Your task to perform on an android device: turn pop-ups on in chrome Image 0: 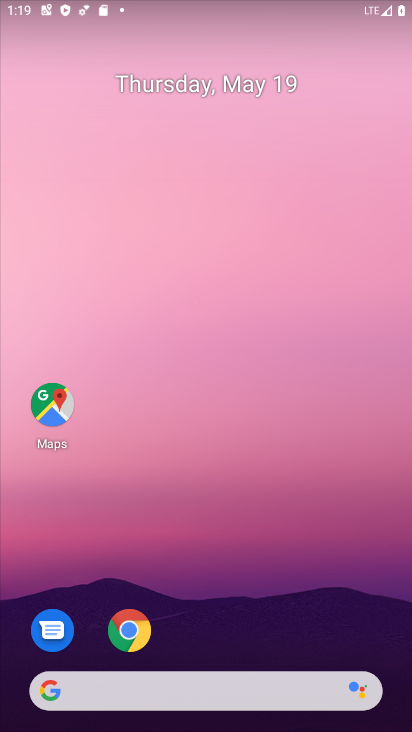
Step 0: drag from (209, 670) to (139, 35)
Your task to perform on an android device: turn pop-ups on in chrome Image 1: 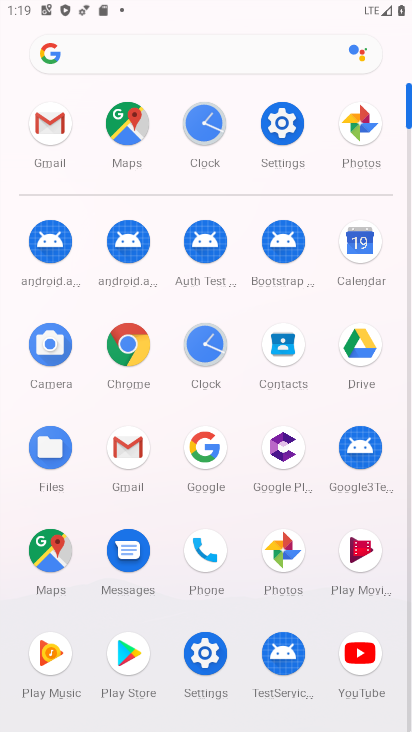
Step 1: click (129, 346)
Your task to perform on an android device: turn pop-ups on in chrome Image 2: 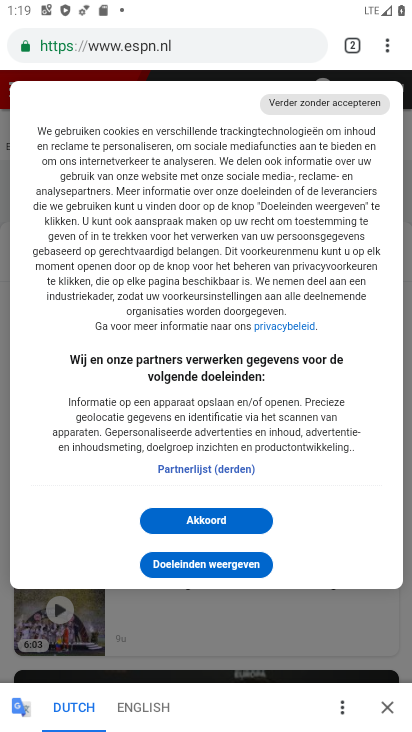
Step 2: click (233, 511)
Your task to perform on an android device: turn pop-ups on in chrome Image 3: 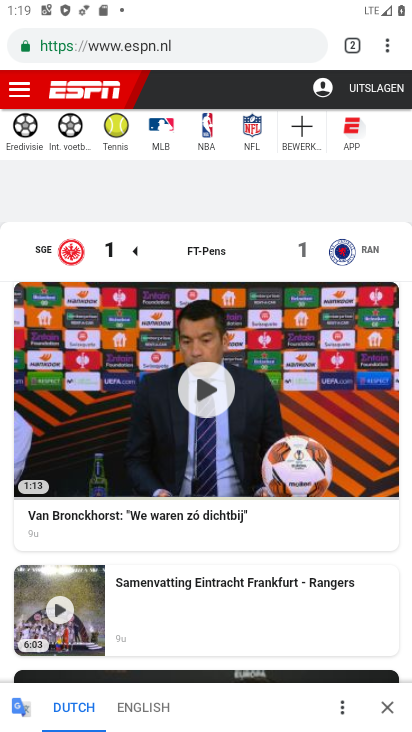
Step 3: click (378, 48)
Your task to perform on an android device: turn pop-ups on in chrome Image 4: 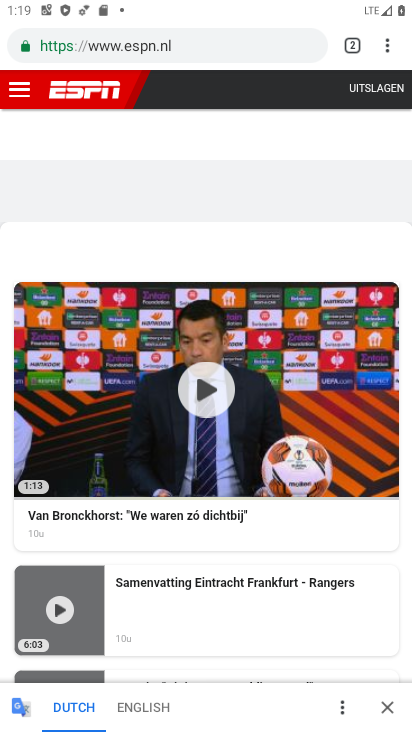
Step 4: click (392, 44)
Your task to perform on an android device: turn pop-ups on in chrome Image 5: 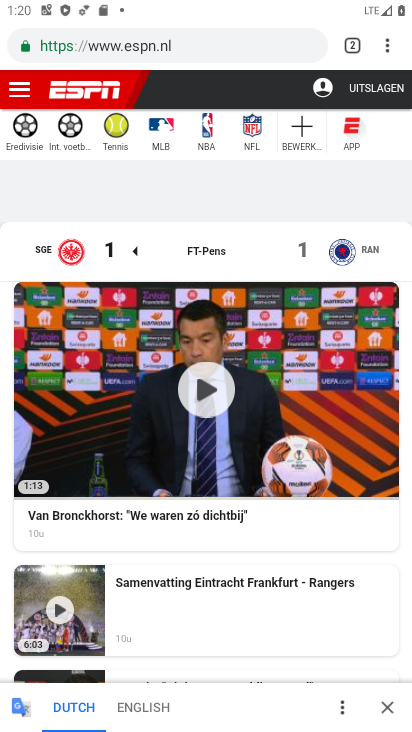
Step 5: click (386, 57)
Your task to perform on an android device: turn pop-ups on in chrome Image 6: 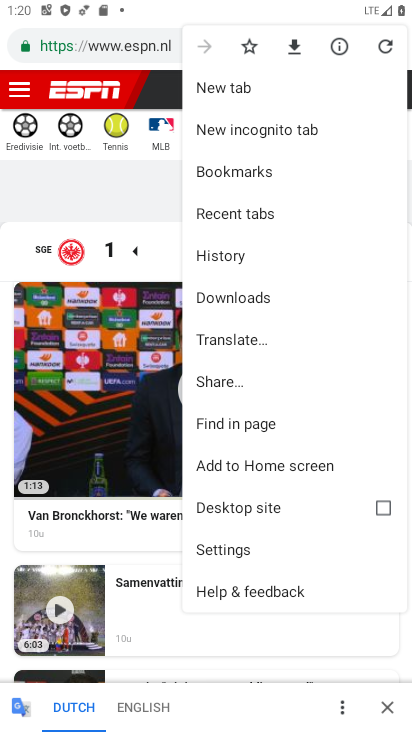
Step 6: click (243, 546)
Your task to perform on an android device: turn pop-ups on in chrome Image 7: 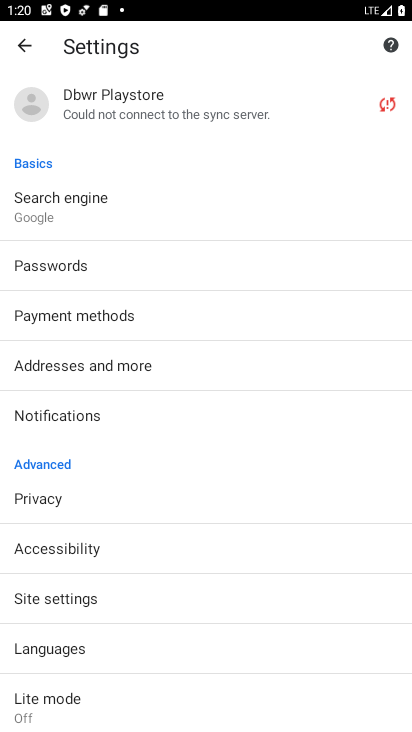
Step 7: click (70, 587)
Your task to perform on an android device: turn pop-ups on in chrome Image 8: 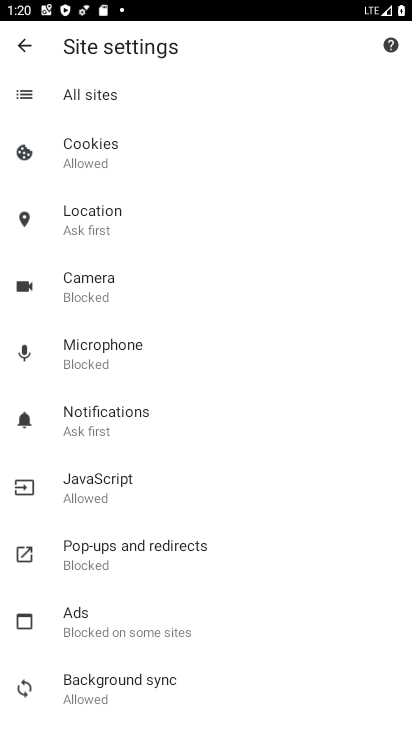
Step 8: click (136, 532)
Your task to perform on an android device: turn pop-ups on in chrome Image 9: 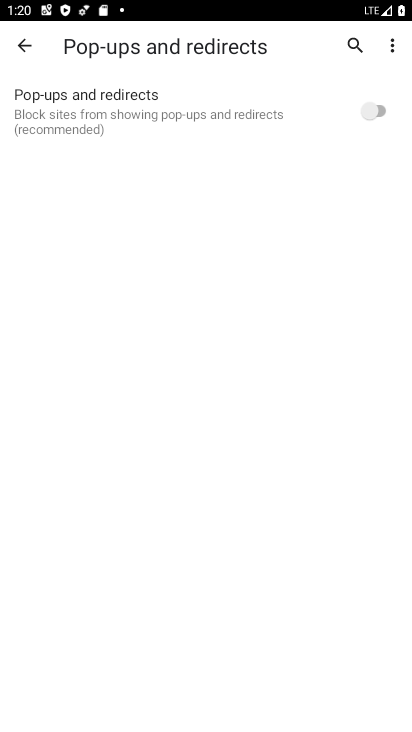
Step 9: click (375, 111)
Your task to perform on an android device: turn pop-ups on in chrome Image 10: 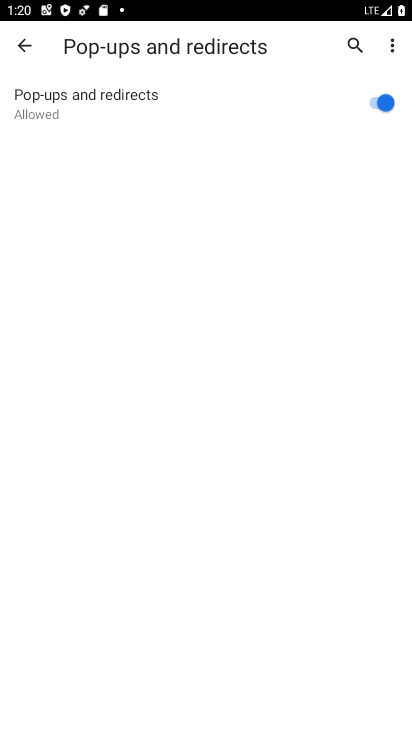
Step 10: task complete